Your task to perform on an android device: open wifi settings Image 0: 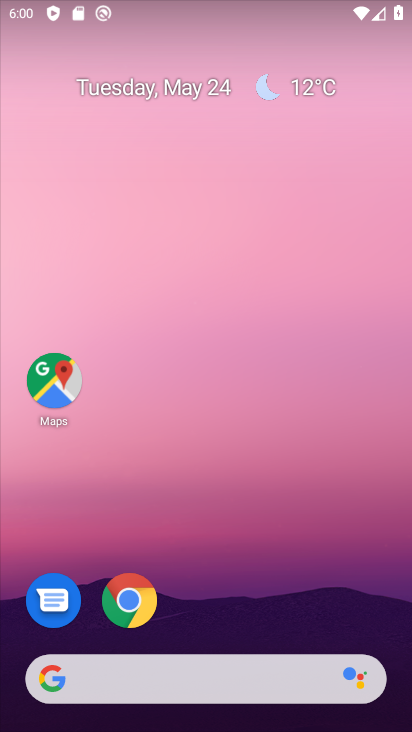
Step 0: drag from (259, 629) to (340, 6)
Your task to perform on an android device: open wifi settings Image 1: 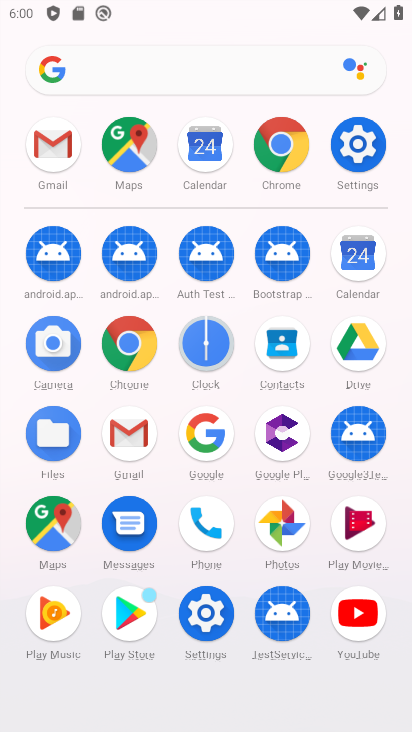
Step 1: click (328, 135)
Your task to perform on an android device: open wifi settings Image 2: 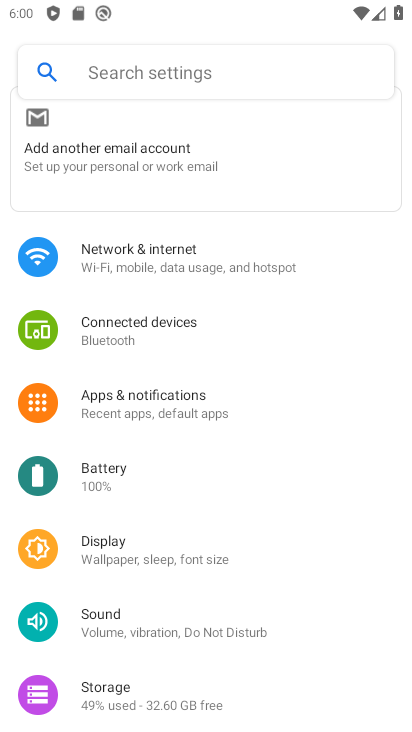
Step 2: click (130, 263)
Your task to perform on an android device: open wifi settings Image 3: 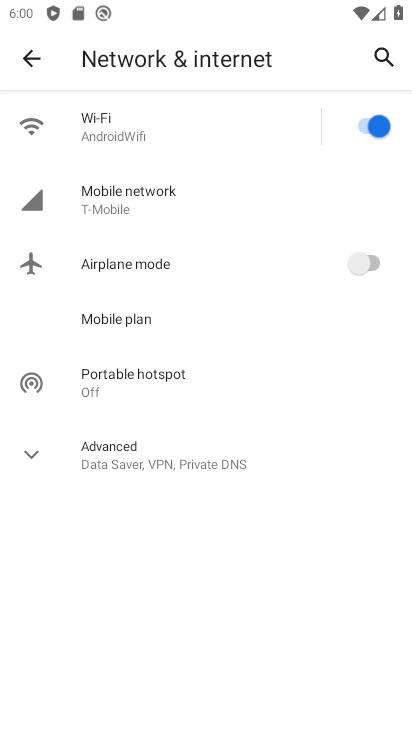
Step 3: click (140, 127)
Your task to perform on an android device: open wifi settings Image 4: 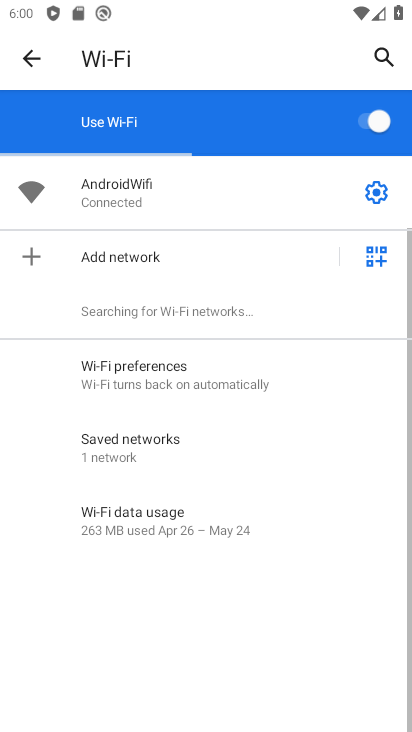
Step 4: task complete